Your task to perform on an android device: manage bookmarks in the chrome app Image 0: 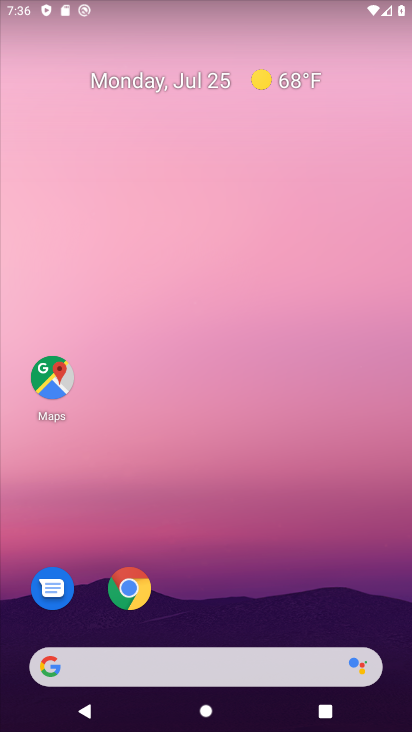
Step 0: press home button
Your task to perform on an android device: manage bookmarks in the chrome app Image 1: 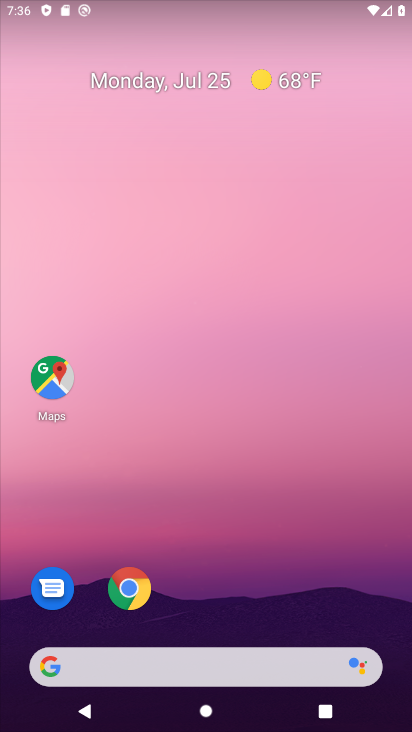
Step 1: drag from (325, 586) to (325, 97)
Your task to perform on an android device: manage bookmarks in the chrome app Image 2: 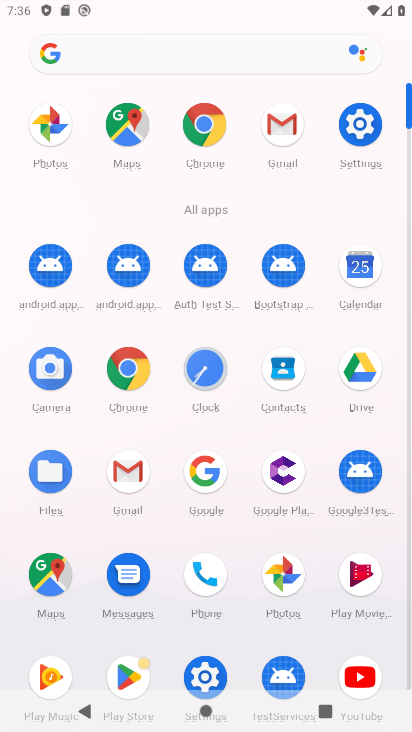
Step 2: click (207, 130)
Your task to perform on an android device: manage bookmarks in the chrome app Image 3: 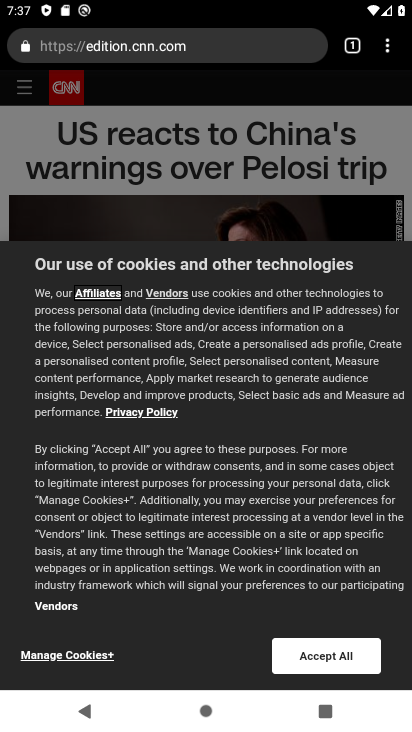
Step 3: click (389, 51)
Your task to perform on an android device: manage bookmarks in the chrome app Image 4: 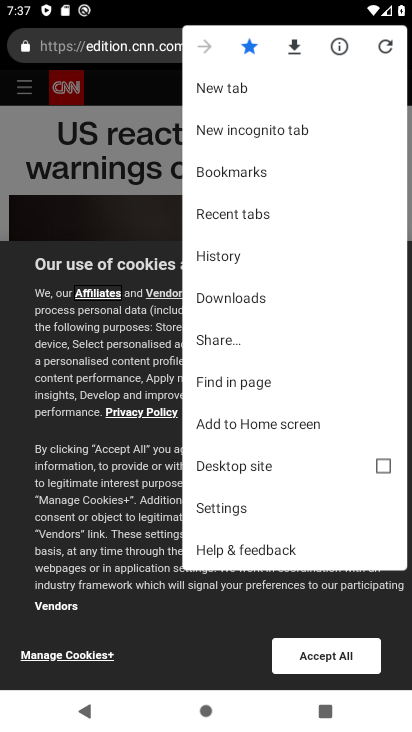
Step 4: click (269, 171)
Your task to perform on an android device: manage bookmarks in the chrome app Image 5: 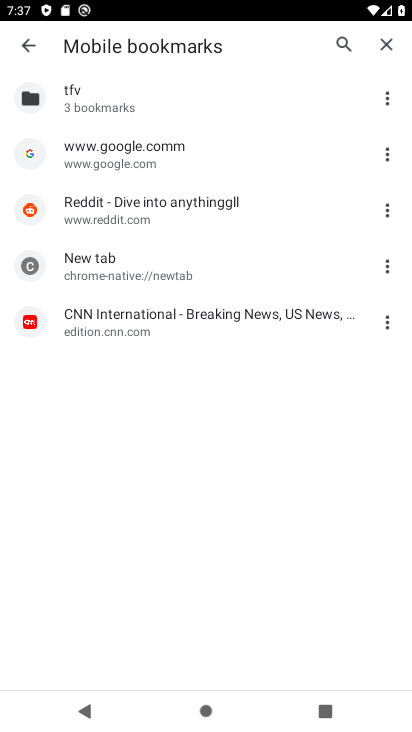
Step 5: click (386, 211)
Your task to perform on an android device: manage bookmarks in the chrome app Image 6: 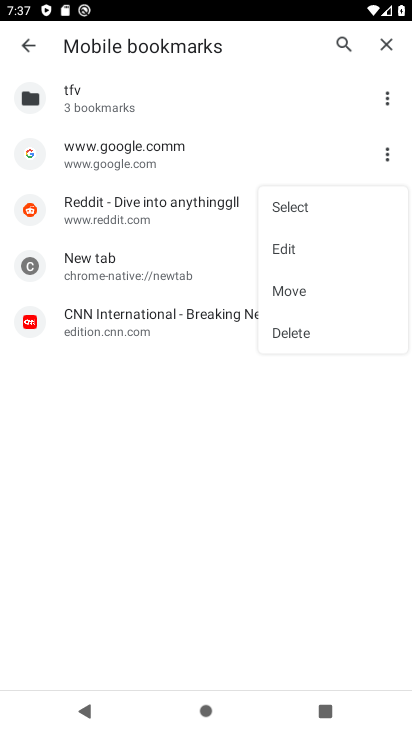
Step 6: click (321, 250)
Your task to perform on an android device: manage bookmarks in the chrome app Image 7: 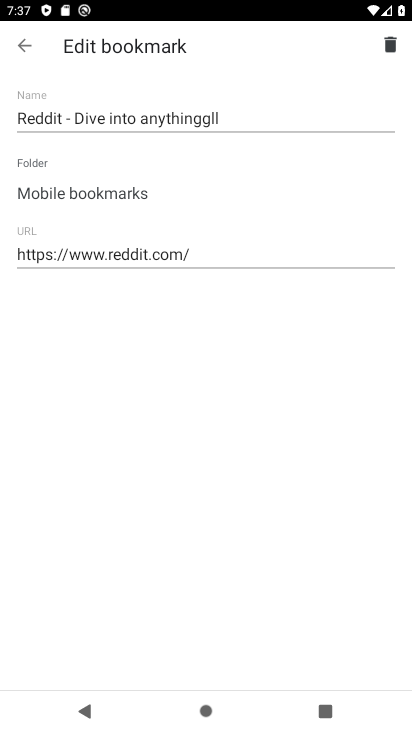
Step 7: click (256, 114)
Your task to perform on an android device: manage bookmarks in the chrome app Image 8: 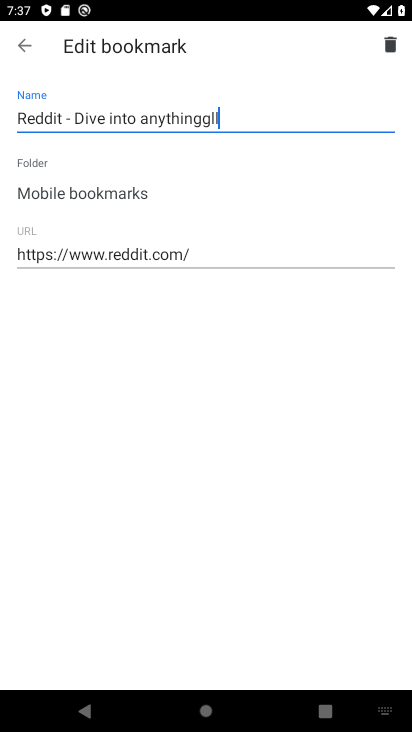
Step 8: type "l"
Your task to perform on an android device: manage bookmarks in the chrome app Image 9: 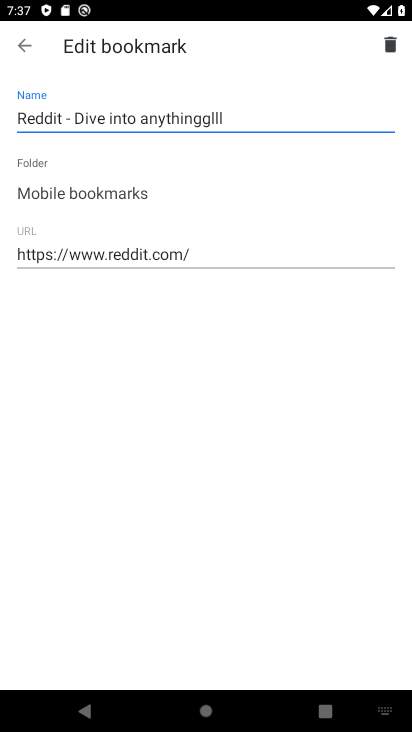
Step 9: click (22, 39)
Your task to perform on an android device: manage bookmarks in the chrome app Image 10: 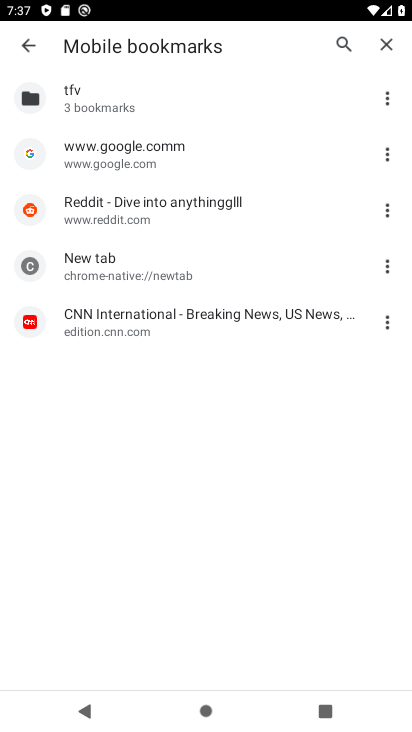
Step 10: task complete